Your task to perform on an android device: find snoozed emails in the gmail app Image 0: 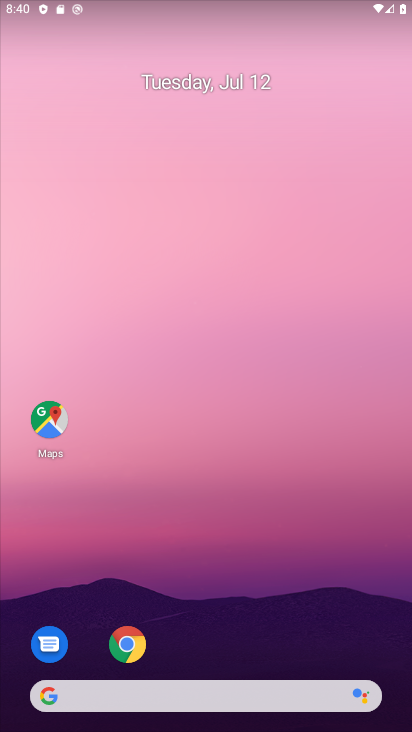
Step 0: drag from (188, 667) to (293, 109)
Your task to perform on an android device: find snoozed emails in the gmail app Image 1: 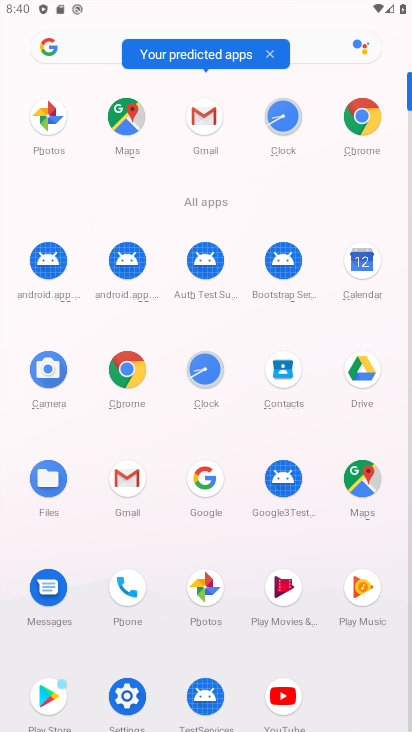
Step 1: click (124, 490)
Your task to perform on an android device: find snoozed emails in the gmail app Image 2: 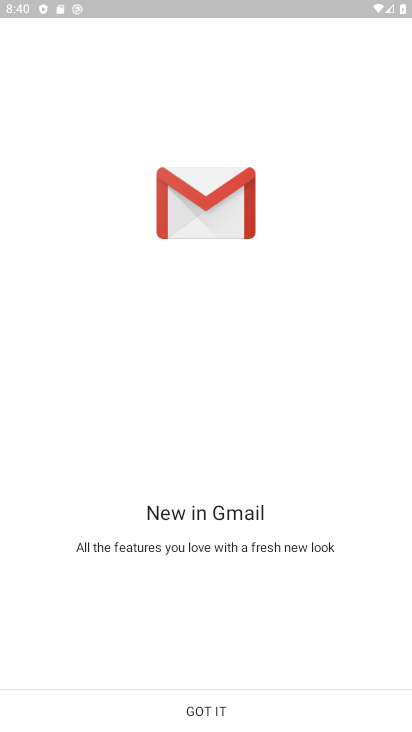
Step 2: click (200, 716)
Your task to perform on an android device: find snoozed emails in the gmail app Image 3: 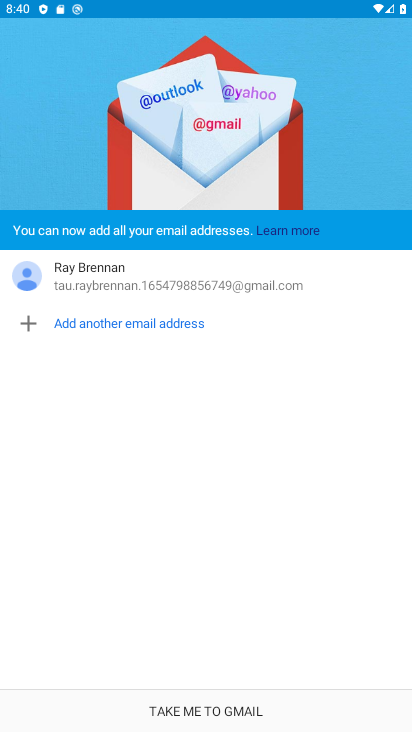
Step 3: click (223, 709)
Your task to perform on an android device: find snoozed emails in the gmail app Image 4: 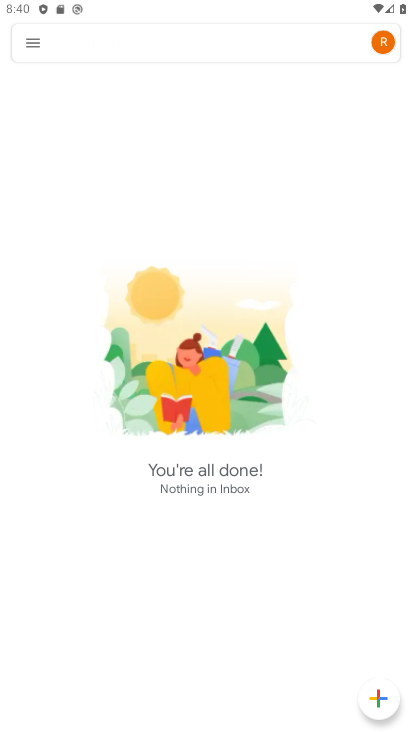
Step 4: click (39, 49)
Your task to perform on an android device: find snoozed emails in the gmail app Image 5: 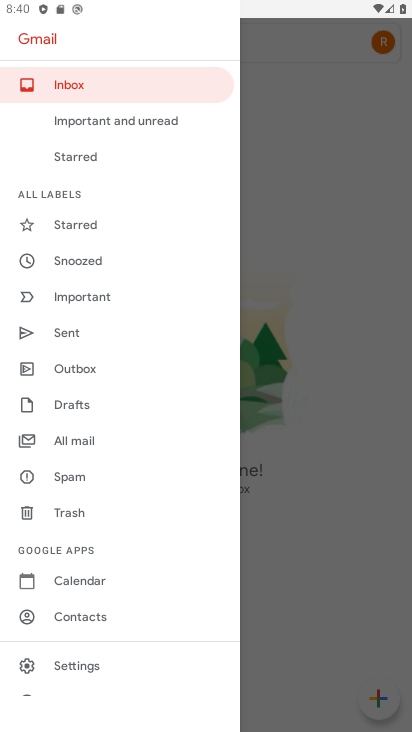
Step 5: click (146, 268)
Your task to perform on an android device: find snoozed emails in the gmail app Image 6: 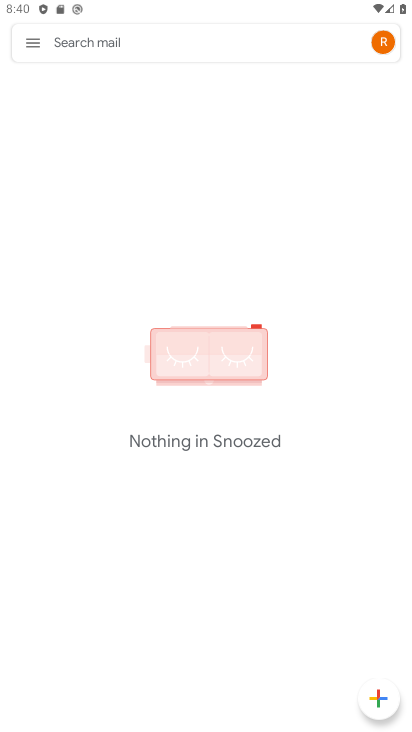
Step 6: task complete